Your task to perform on an android device: Turn off the flashlight Image 0: 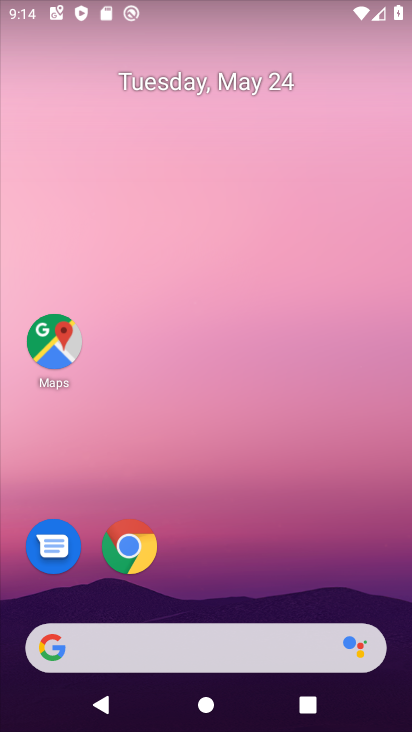
Step 0: drag from (259, 562) to (272, 176)
Your task to perform on an android device: Turn off the flashlight Image 1: 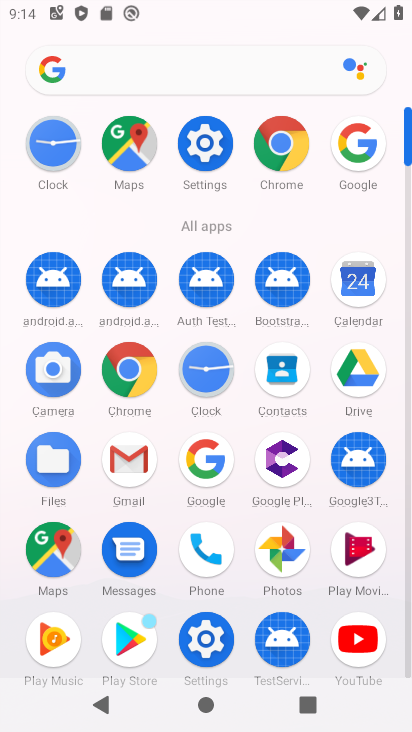
Step 1: click (187, 153)
Your task to perform on an android device: Turn off the flashlight Image 2: 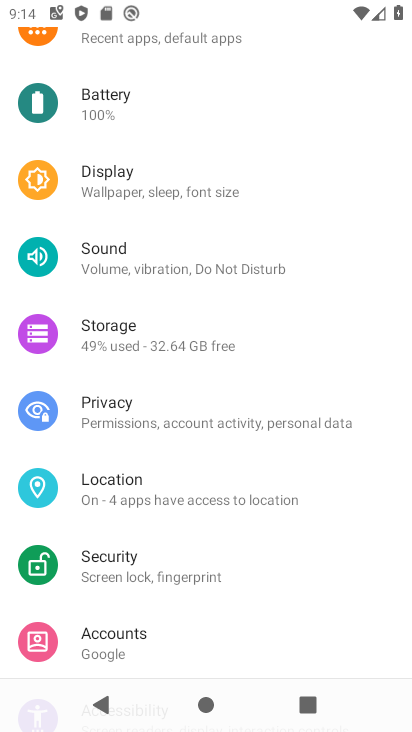
Step 2: drag from (216, 163) to (224, 648)
Your task to perform on an android device: Turn off the flashlight Image 3: 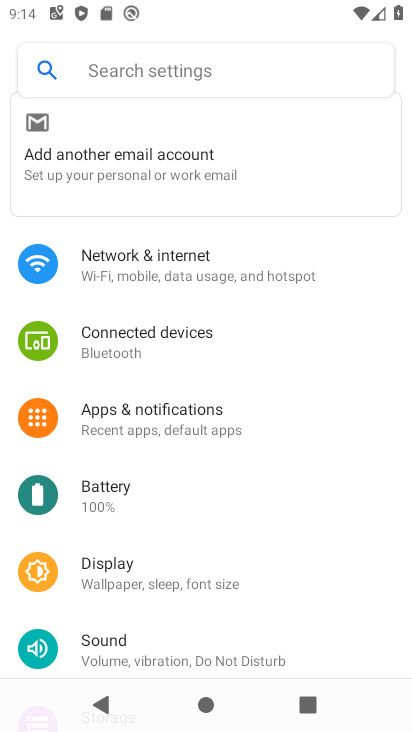
Step 3: click (210, 77)
Your task to perform on an android device: Turn off the flashlight Image 4: 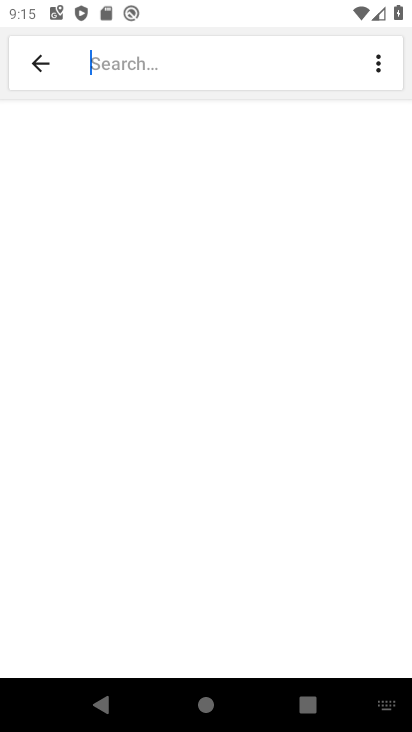
Step 4: type "flashlight "
Your task to perform on an android device: Turn off the flashlight Image 5: 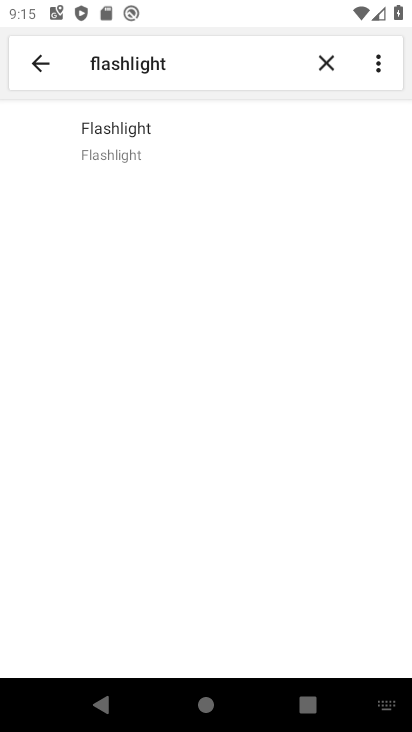
Step 5: task complete